Your task to perform on an android device: turn smart compose on in the gmail app Image 0: 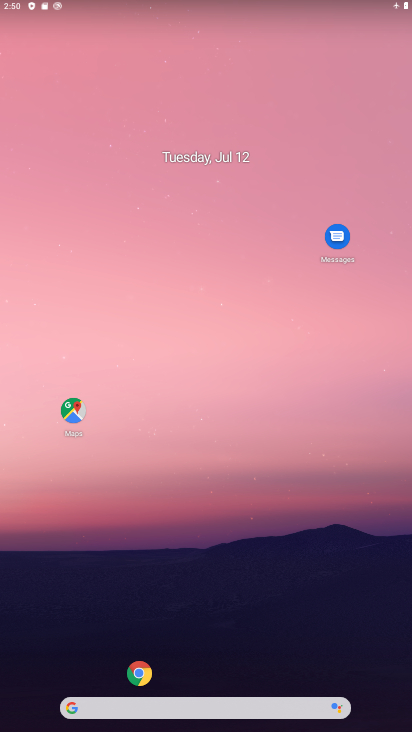
Step 0: drag from (51, 692) to (227, 242)
Your task to perform on an android device: turn smart compose on in the gmail app Image 1: 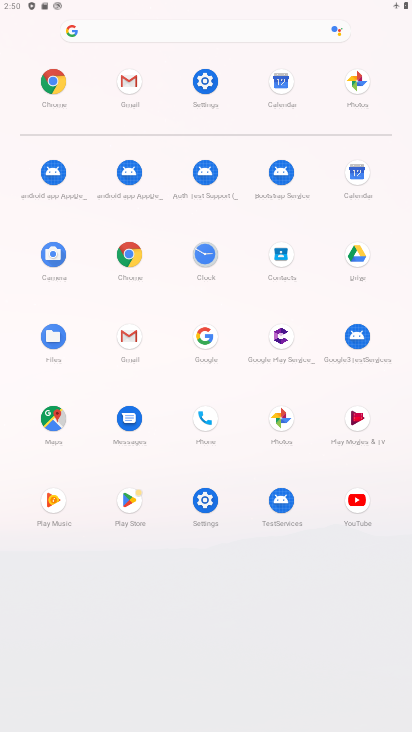
Step 1: click (137, 338)
Your task to perform on an android device: turn smart compose on in the gmail app Image 2: 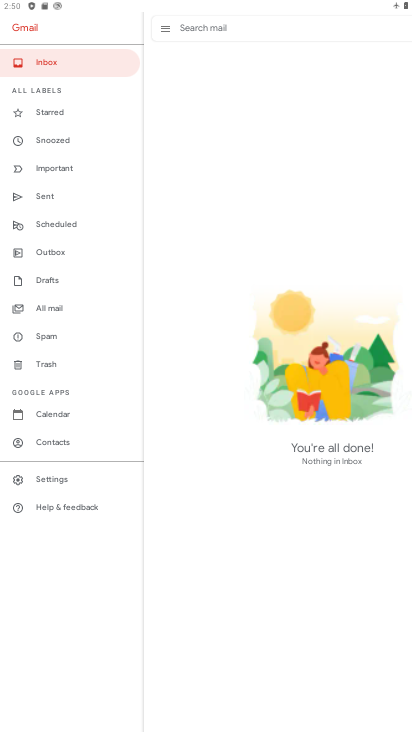
Step 2: click (57, 57)
Your task to perform on an android device: turn smart compose on in the gmail app Image 3: 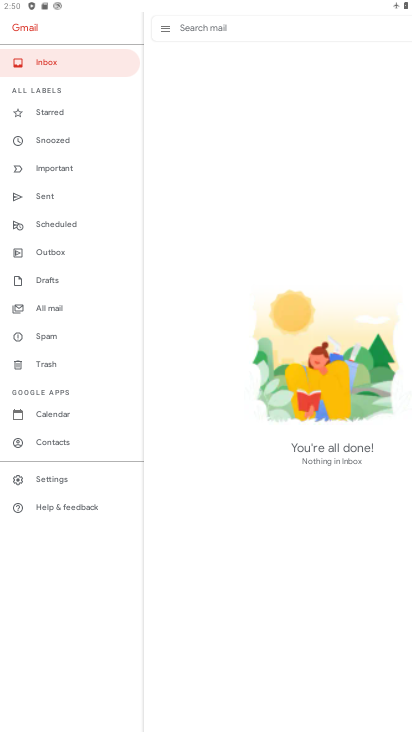
Step 3: task complete